Your task to perform on an android device: Go to Yahoo.com Image 0: 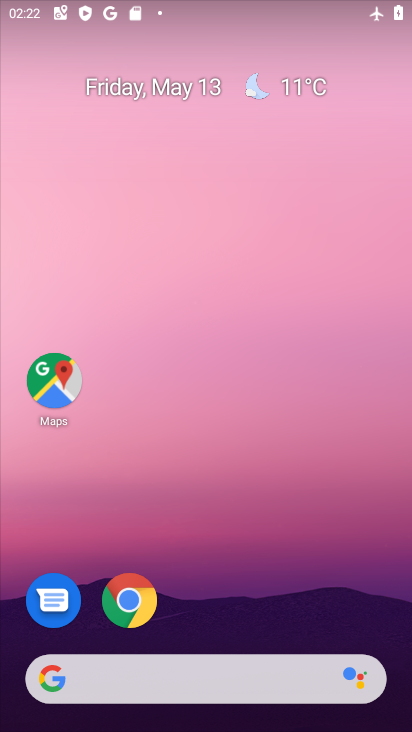
Step 0: drag from (165, 628) to (215, 220)
Your task to perform on an android device: Go to Yahoo.com Image 1: 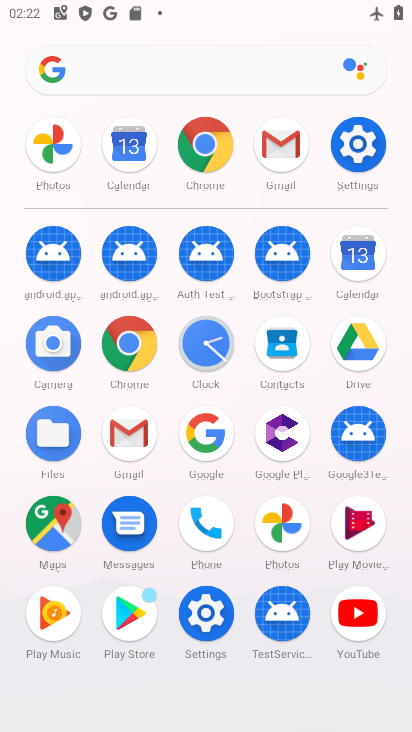
Step 1: click (191, 62)
Your task to perform on an android device: Go to Yahoo.com Image 2: 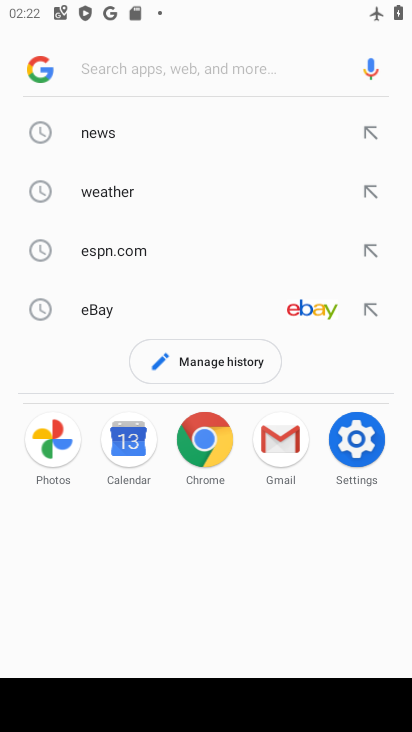
Step 2: type "yahoo.com"
Your task to perform on an android device: Go to Yahoo.com Image 3: 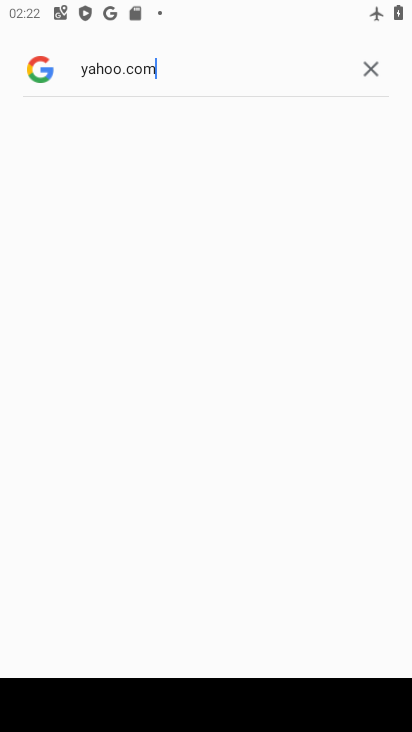
Step 3: click (183, 152)
Your task to perform on an android device: Go to Yahoo.com Image 4: 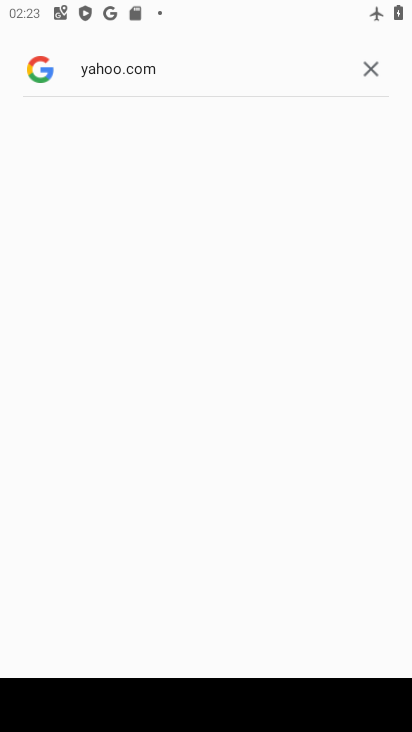
Step 4: click (236, 228)
Your task to perform on an android device: Go to Yahoo.com Image 5: 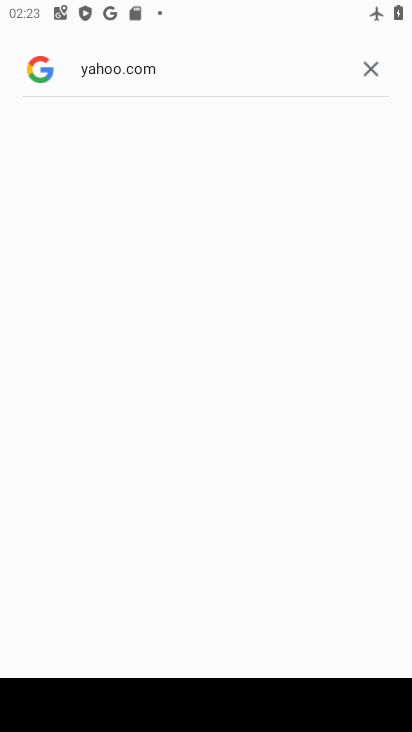
Step 5: task complete